Your task to perform on an android device: change notifications settings Image 0: 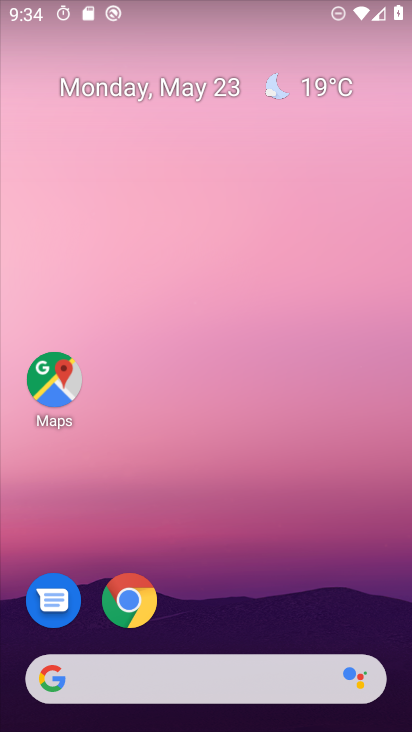
Step 0: press home button
Your task to perform on an android device: change notifications settings Image 1: 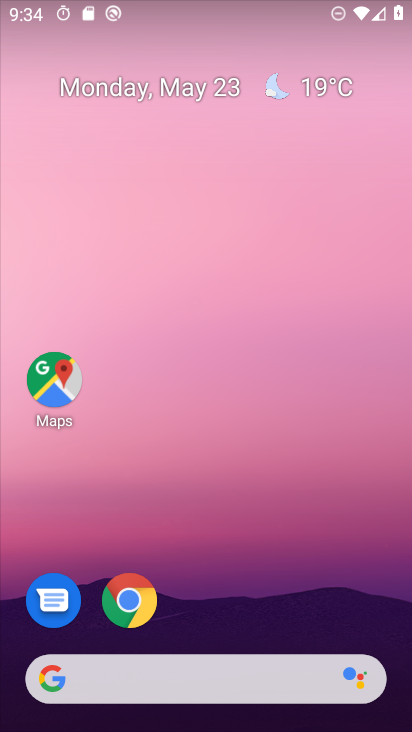
Step 1: drag from (30, 550) to (169, 160)
Your task to perform on an android device: change notifications settings Image 2: 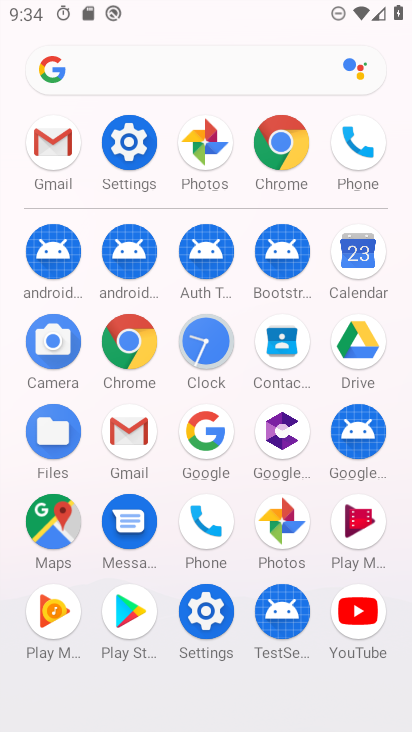
Step 2: click (133, 139)
Your task to perform on an android device: change notifications settings Image 3: 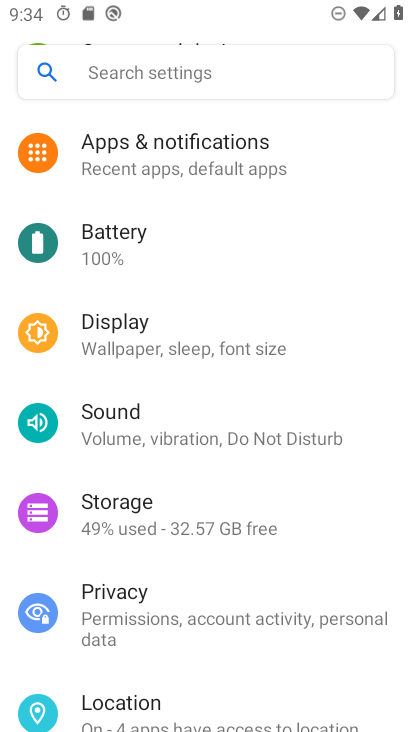
Step 3: click (139, 150)
Your task to perform on an android device: change notifications settings Image 4: 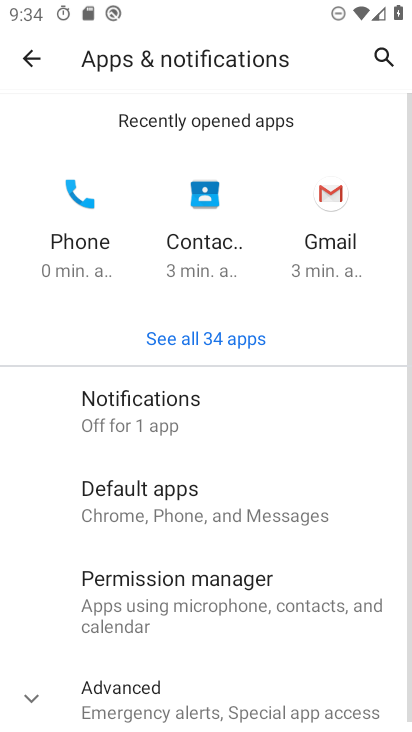
Step 4: click (168, 437)
Your task to perform on an android device: change notifications settings Image 5: 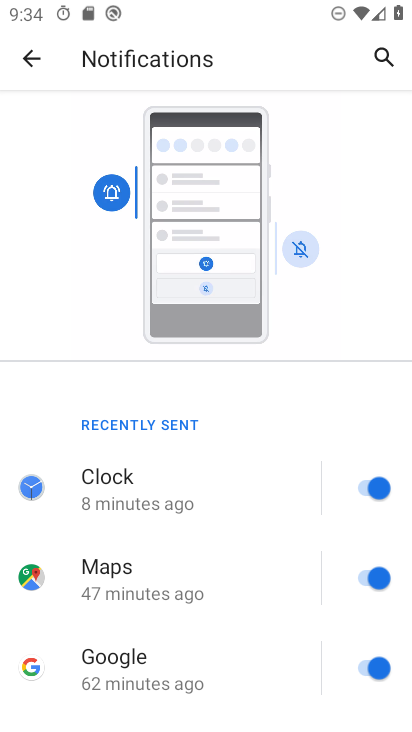
Step 5: task complete